Your task to perform on an android device: turn off javascript in the chrome app Image 0: 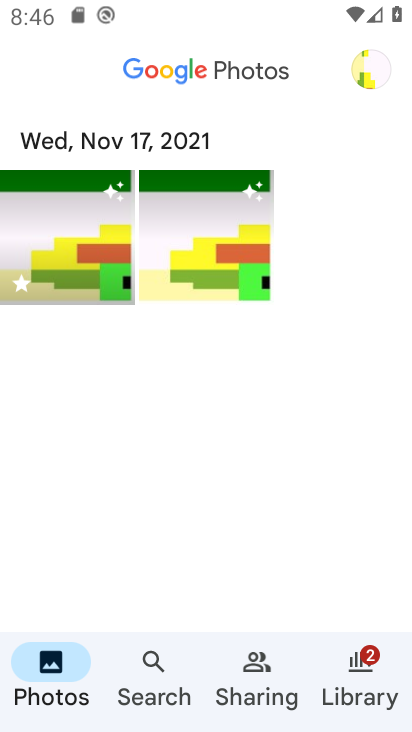
Step 0: press back button
Your task to perform on an android device: turn off javascript in the chrome app Image 1: 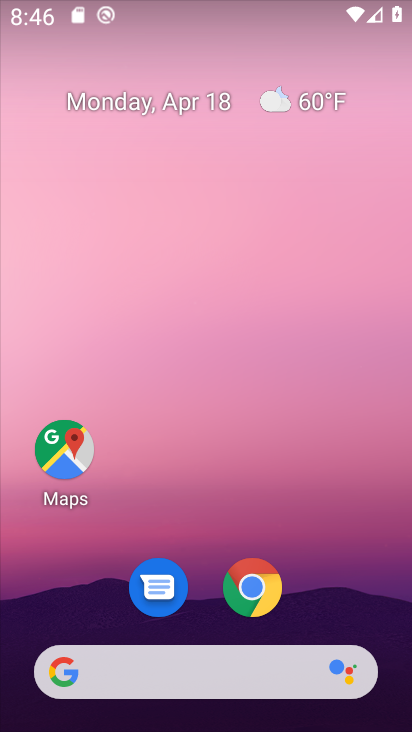
Step 1: click (273, 595)
Your task to perform on an android device: turn off javascript in the chrome app Image 2: 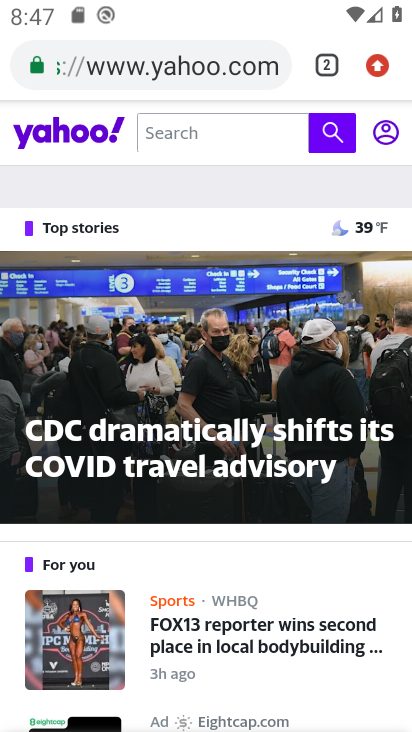
Step 2: click (384, 71)
Your task to perform on an android device: turn off javascript in the chrome app Image 3: 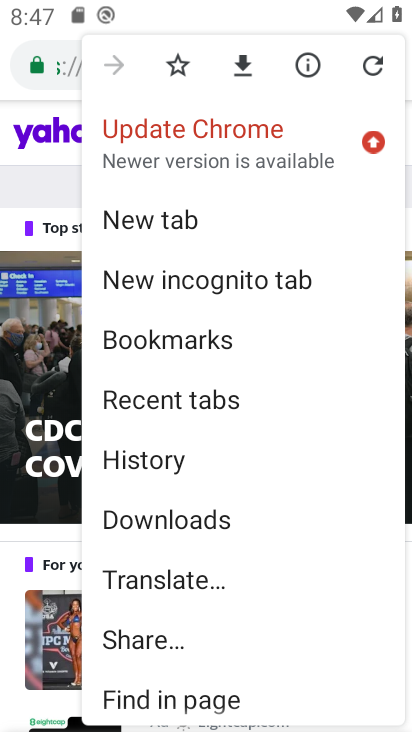
Step 3: drag from (223, 585) to (215, 163)
Your task to perform on an android device: turn off javascript in the chrome app Image 4: 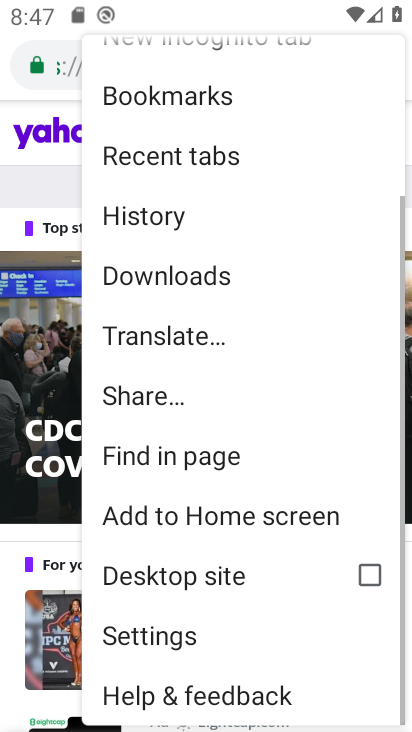
Step 4: click (200, 626)
Your task to perform on an android device: turn off javascript in the chrome app Image 5: 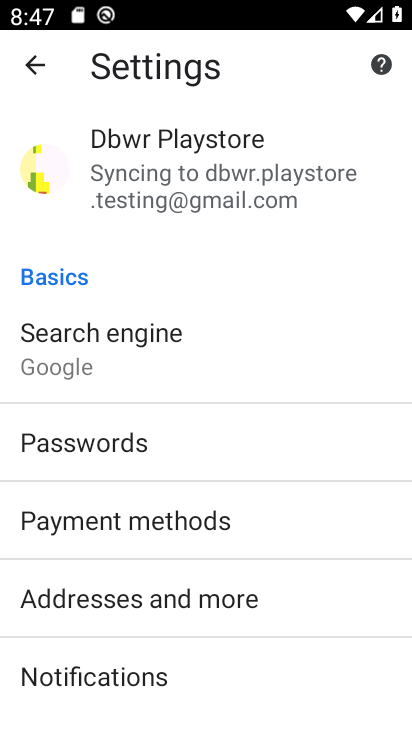
Step 5: drag from (200, 626) to (167, 297)
Your task to perform on an android device: turn off javascript in the chrome app Image 6: 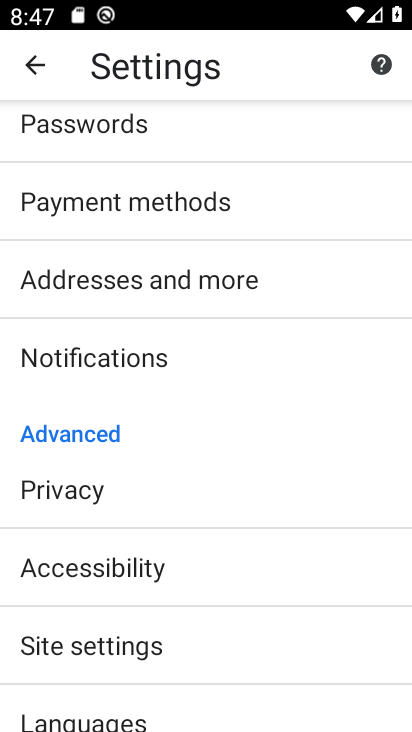
Step 6: drag from (181, 528) to (147, 262)
Your task to perform on an android device: turn off javascript in the chrome app Image 7: 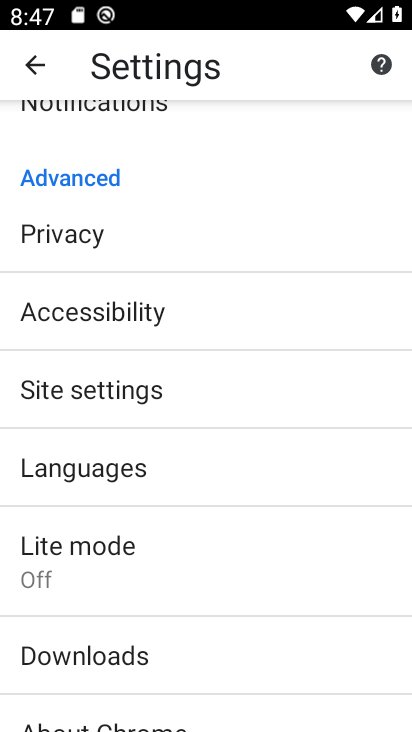
Step 7: click (165, 407)
Your task to perform on an android device: turn off javascript in the chrome app Image 8: 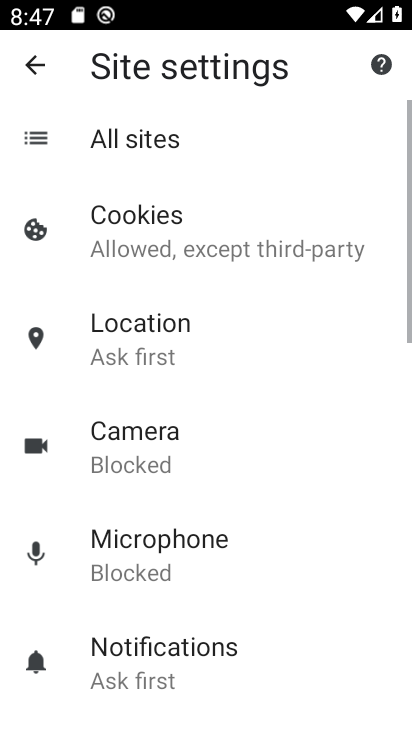
Step 8: drag from (196, 550) to (159, 199)
Your task to perform on an android device: turn off javascript in the chrome app Image 9: 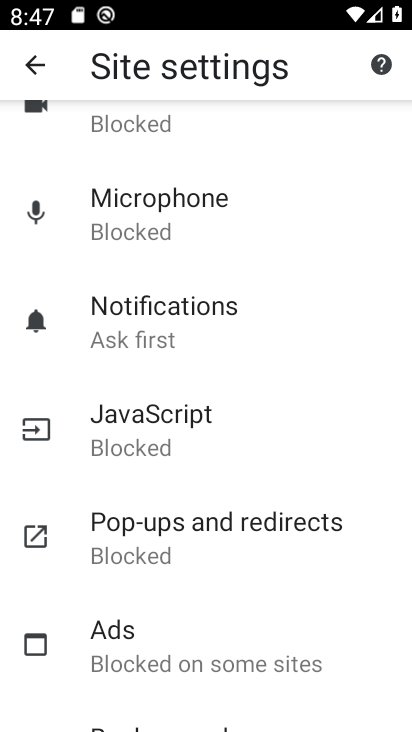
Step 9: click (181, 451)
Your task to perform on an android device: turn off javascript in the chrome app Image 10: 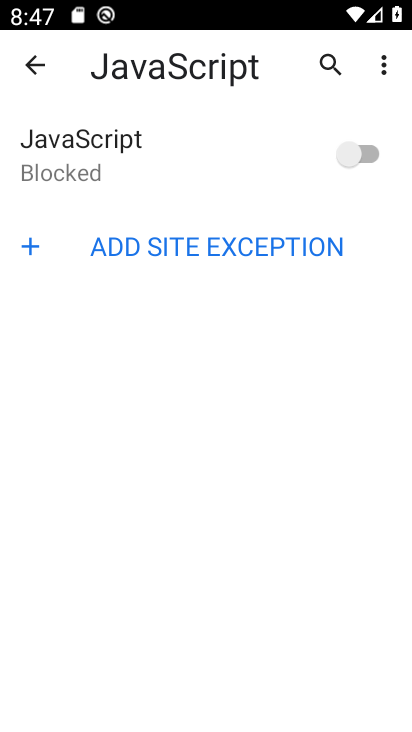
Step 10: click (371, 141)
Your task to perform on an android device: turn off javascript in the chrome app Image 11: 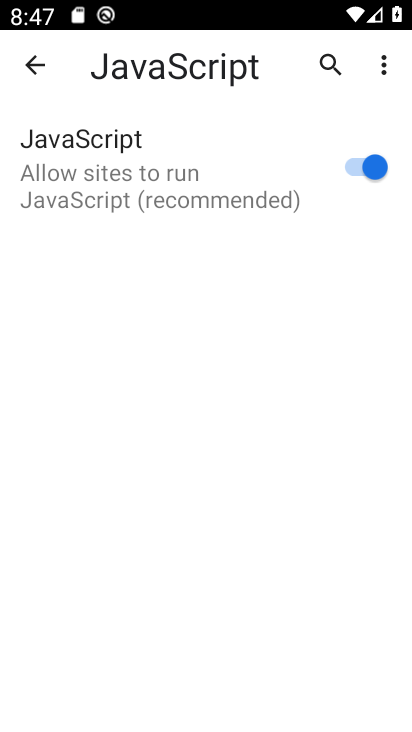
Step 11: task complete